Your task to perform on an android device: Do I have any events this weekend? Image 0: 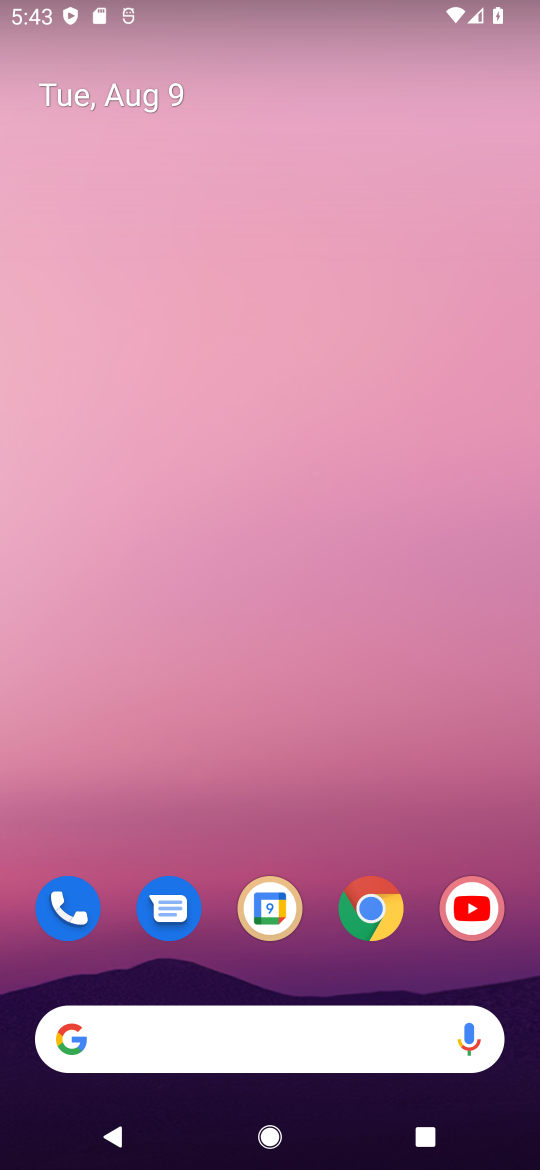
Step 0: click (270, 907)
Your task to perform on an android device: Do I have any events this weekend? Image 1: 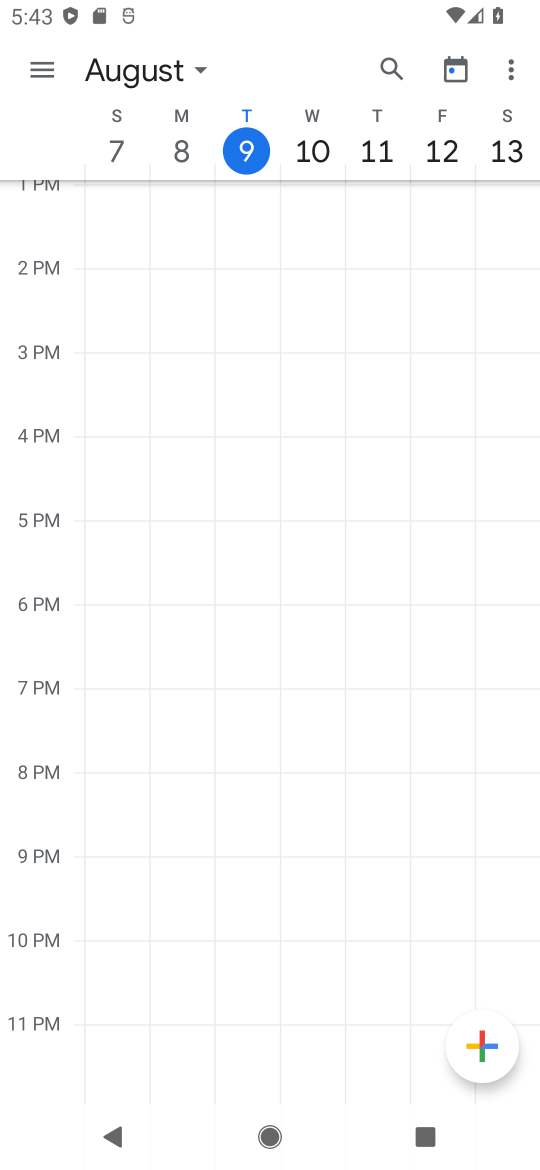
Step 1: task complete